Your task to perform on an android device: install app "Skype" Image 0: 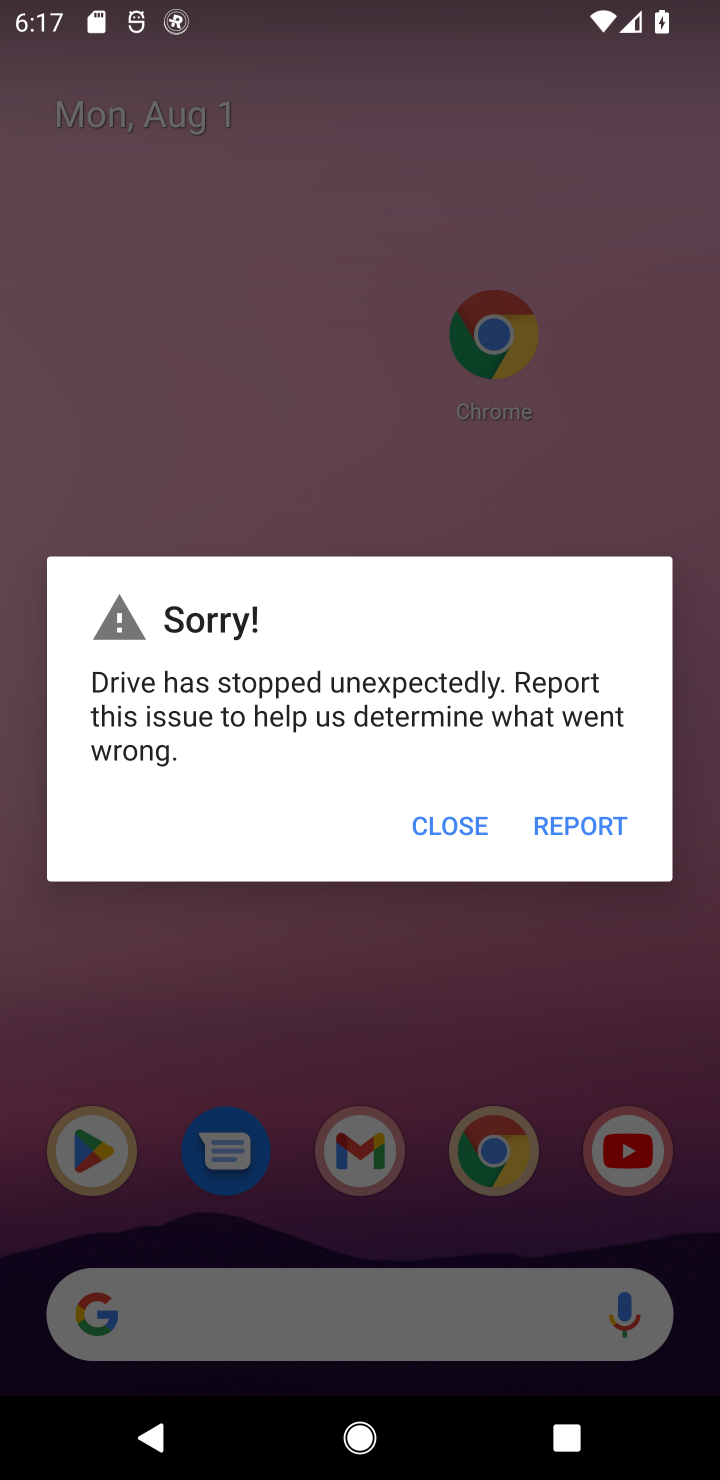
Step 0: press home button
Your task to perform on an android device: install app "Skype" Image 1: 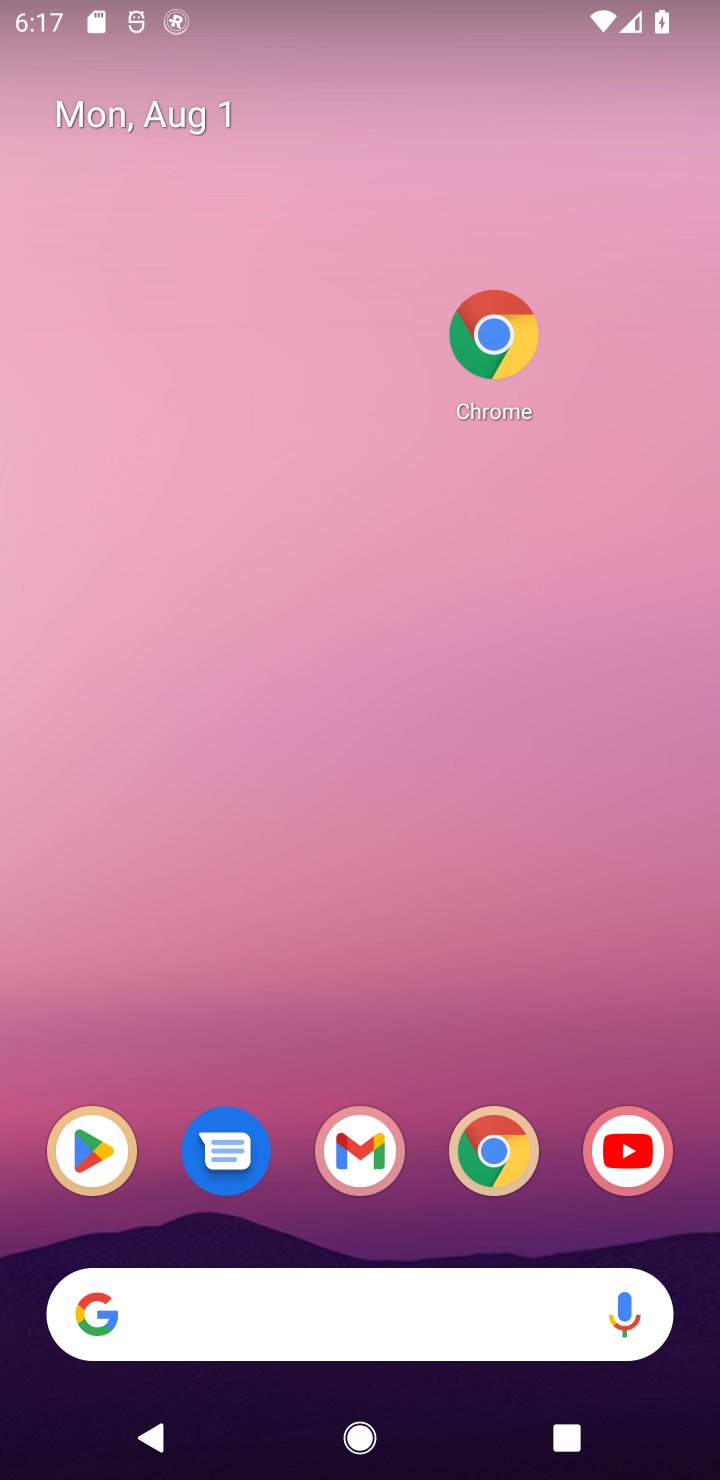
Step 1: click (95, 1164)
Your task to perform on an android device: install app "Skype" Image 2: 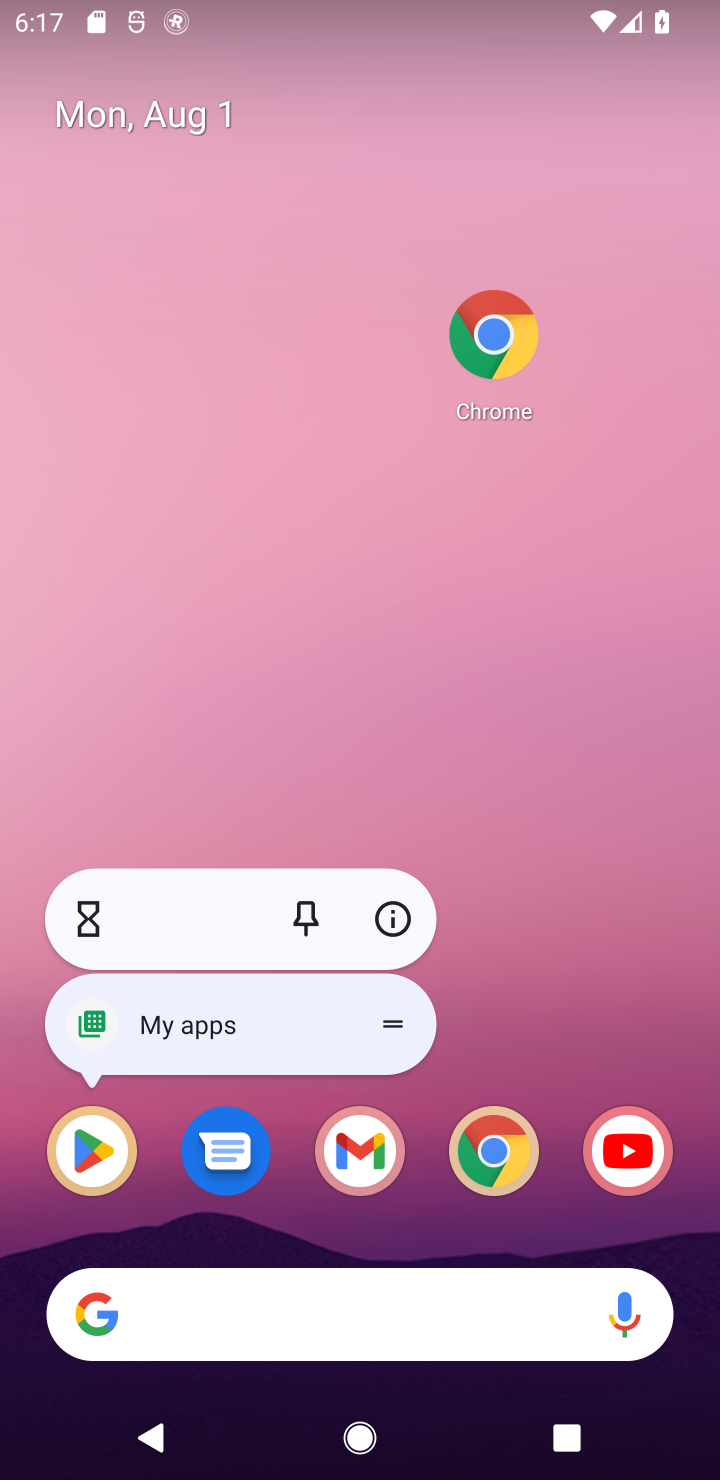
Step 2: click (96, 1164)
Your task to perform on an android device: install app "Skype" Image 3: 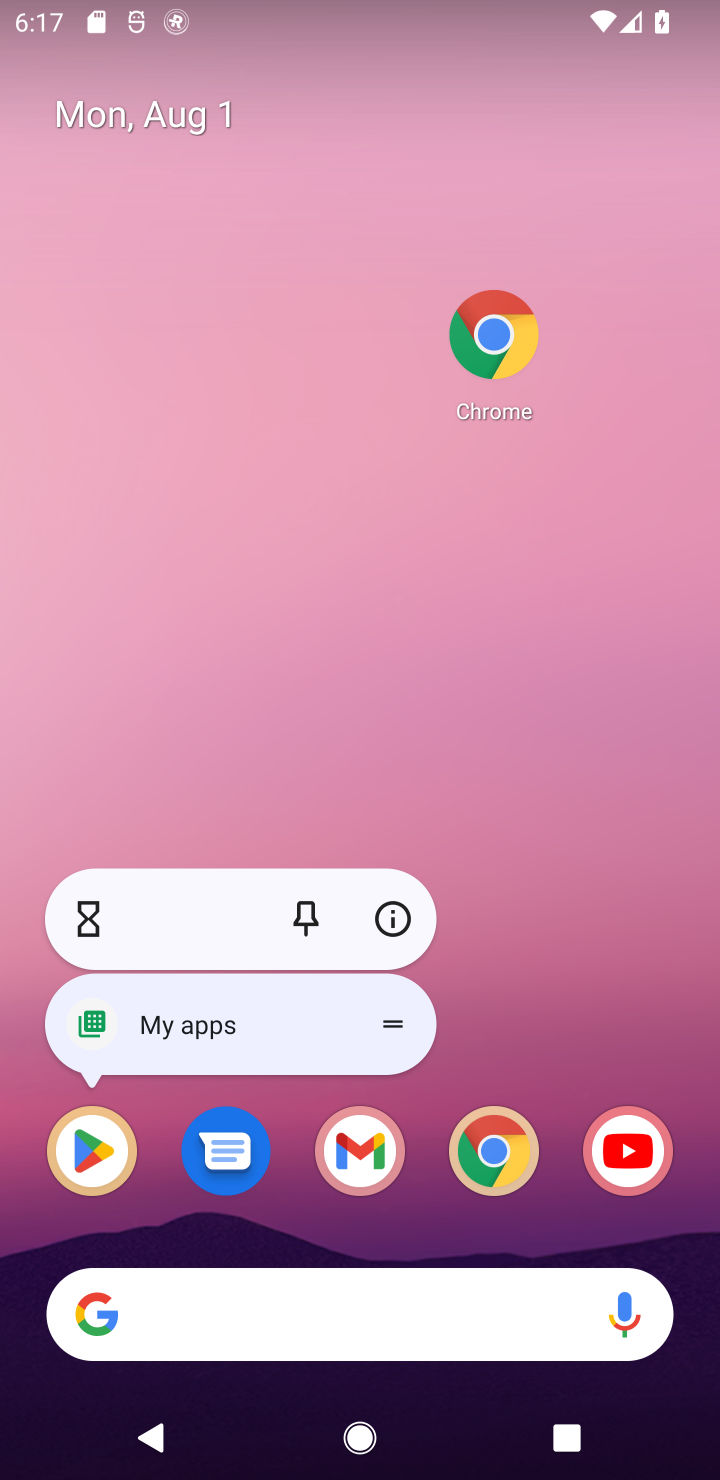
Step 3: click (89, 1136)
Your task to perform on an android device: install app "Skype" Image 4: 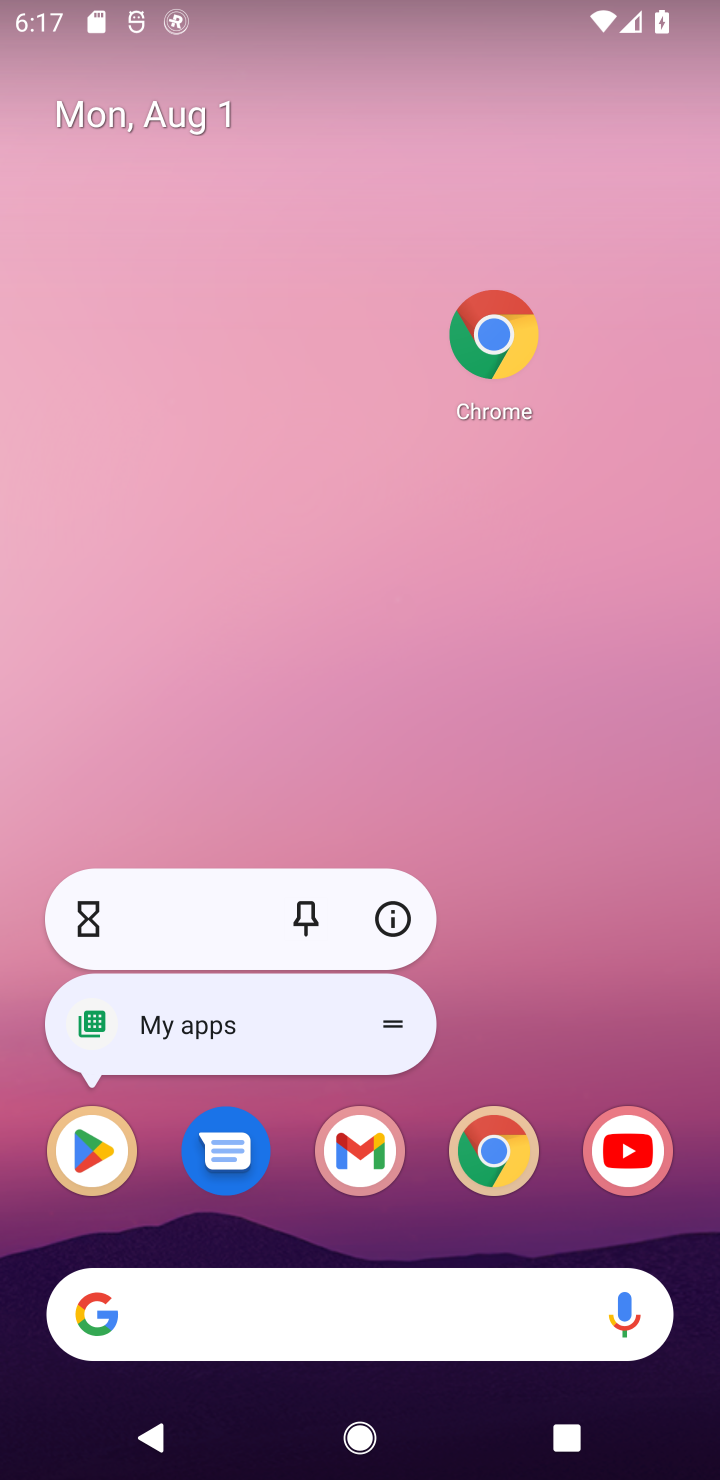
Step 4: click (69, 1155)
Your task to perform on an android device: install app "Skype" Image 5: 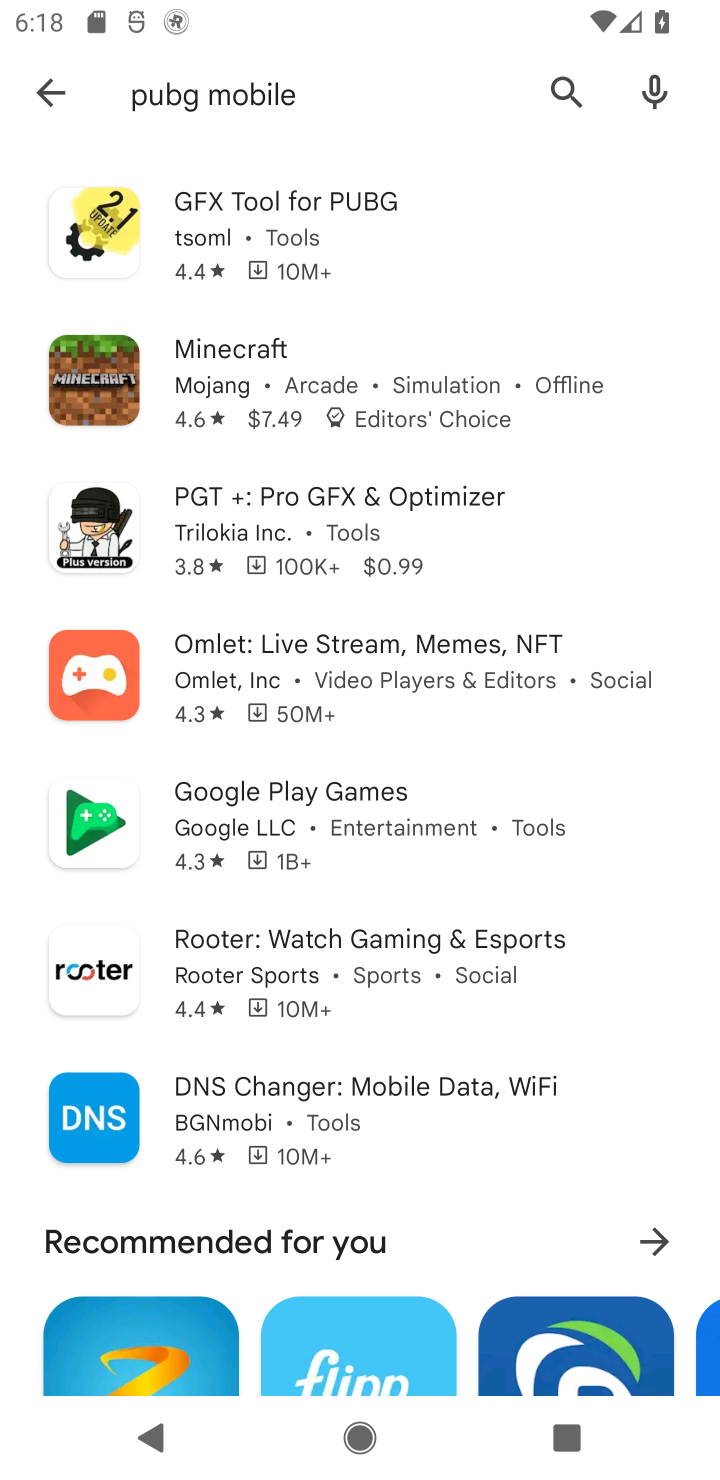
Step 5: click (568, 82)
Your task to perform on an android device: install app "Skype" Image 6: 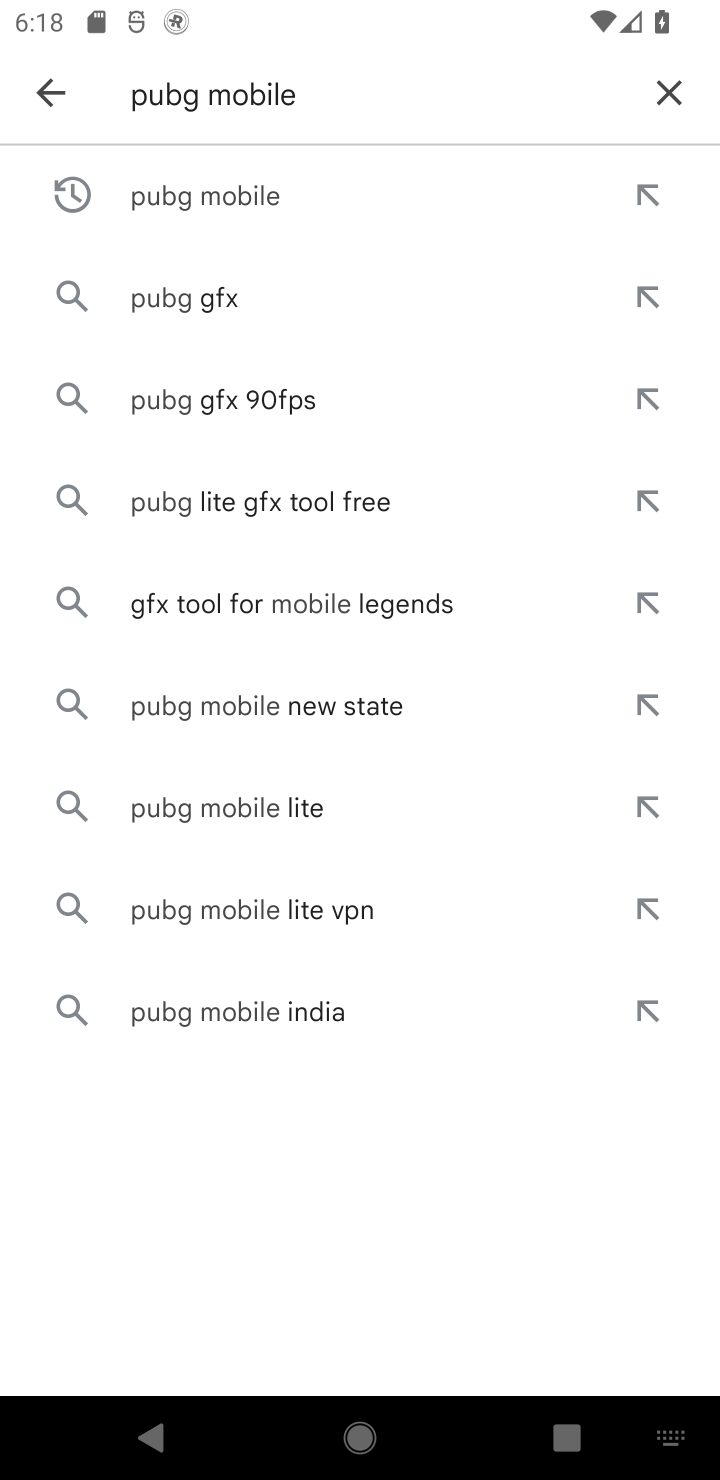
Step 6: click (667, 94)
Your task to perform on an android device: install app "Skype" Image 7: 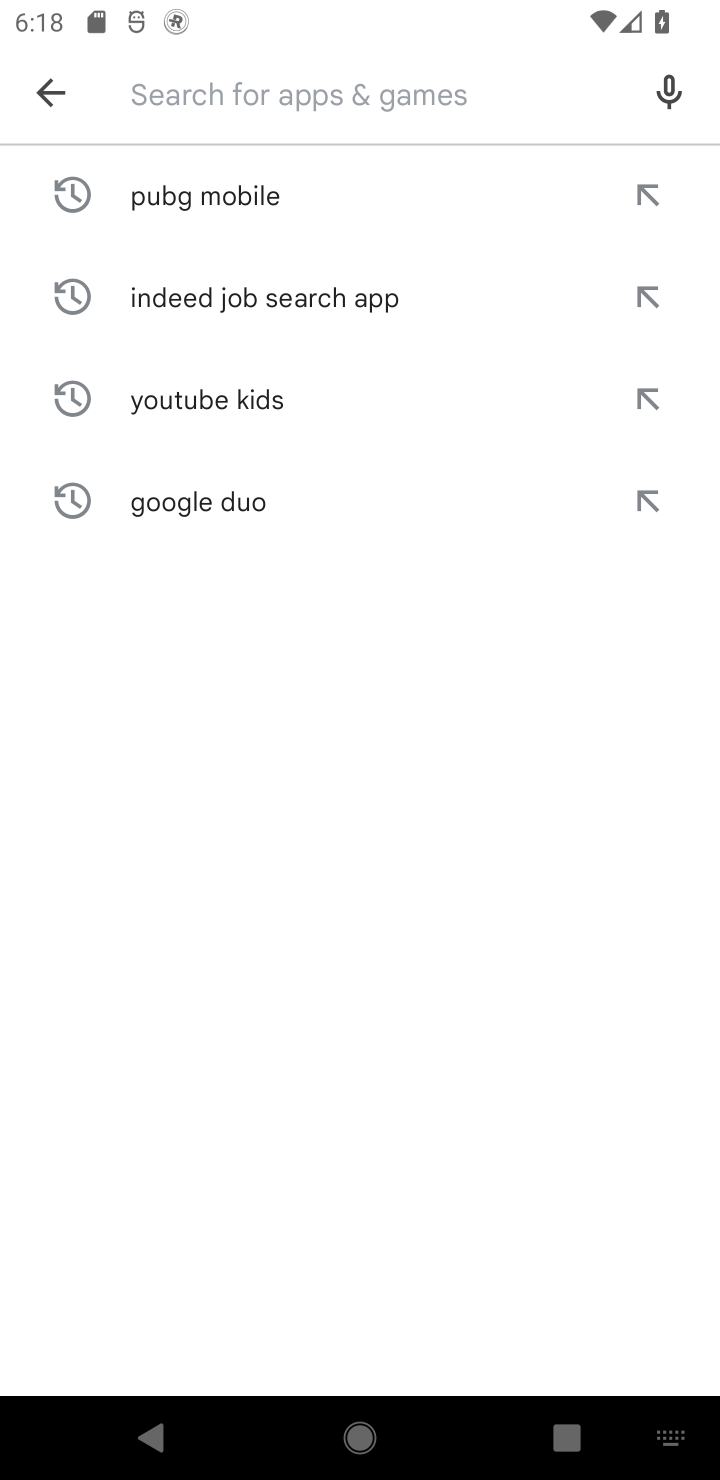
Step 7: type "Skype"
Your task to perform on an android device: install app "Skype" Image 8: 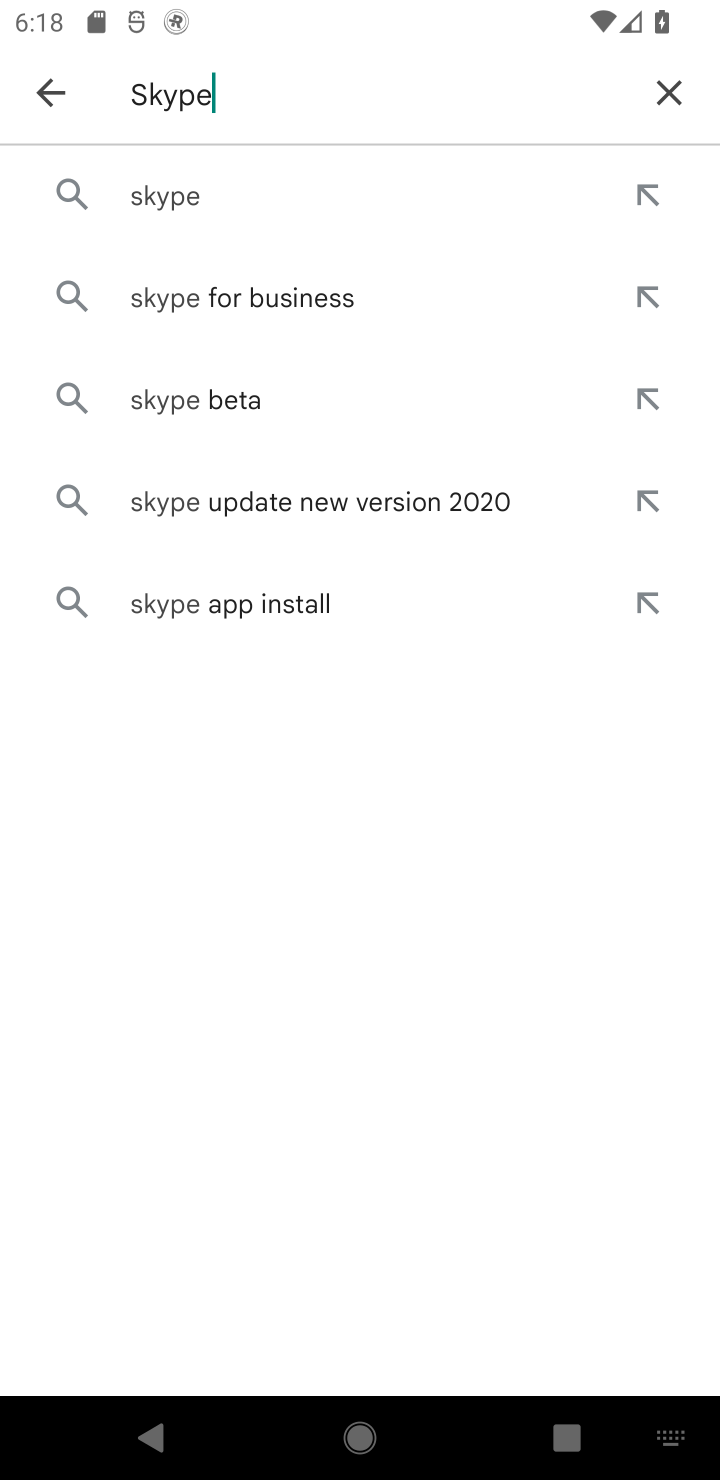
Step 8: click (163, 210)
Your task to perform on an android device: install app "Skype" Image 9: 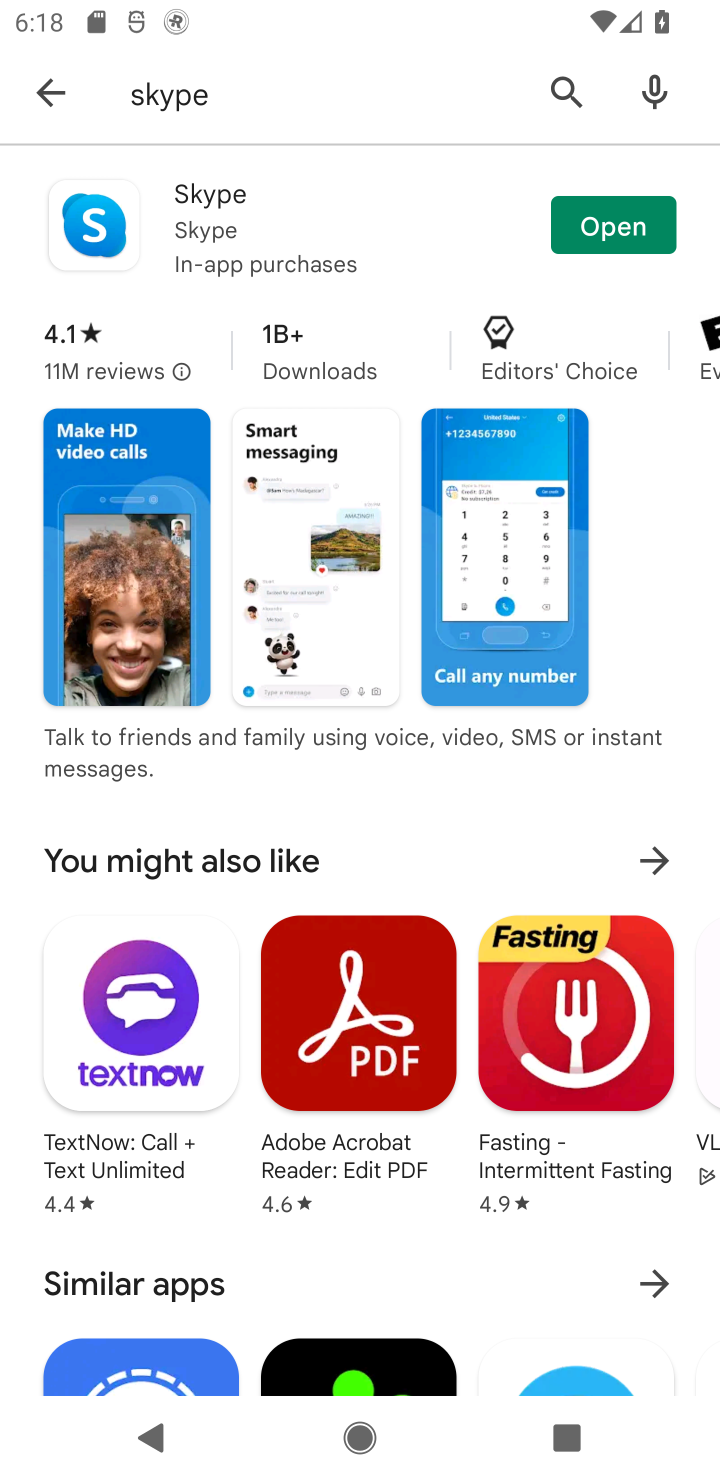
Step 9: task complete